Your task to perform on an android device: install app "Messenger Lite" Image 0: 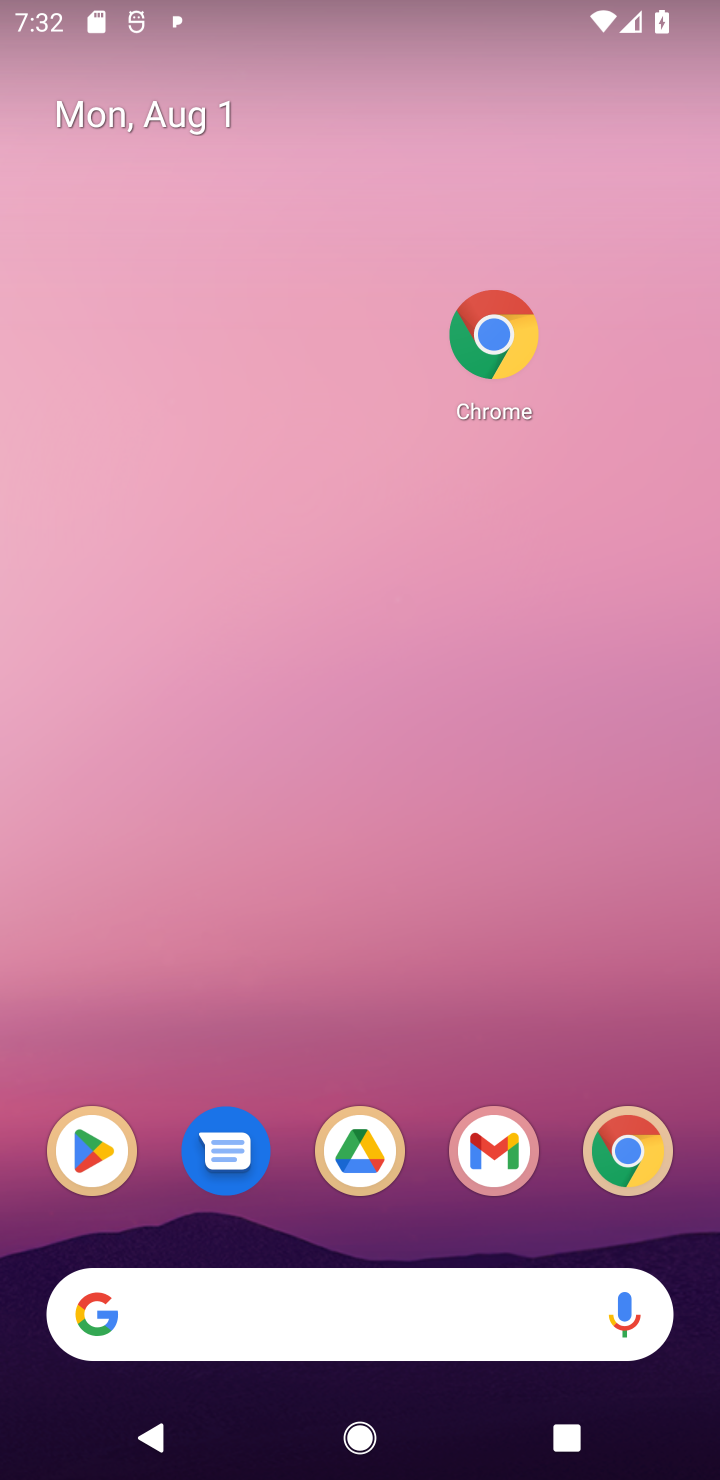
Step 0: click (88, 1163)
Your task to perform on an android device: install app "Messenger Lite" Image 1: 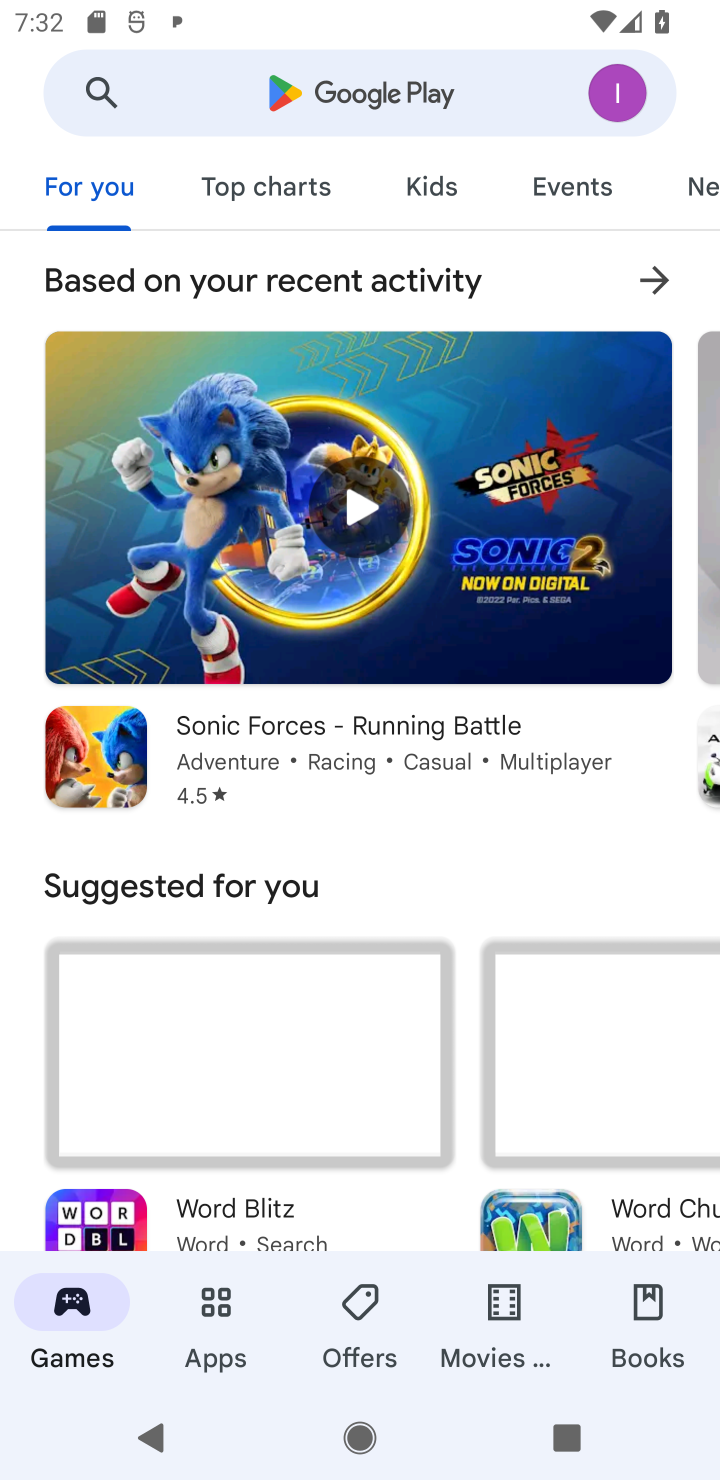
Step 1: click (223, 94)
Your task to perform on an android device: install app "Messenger Lite" Image 2: 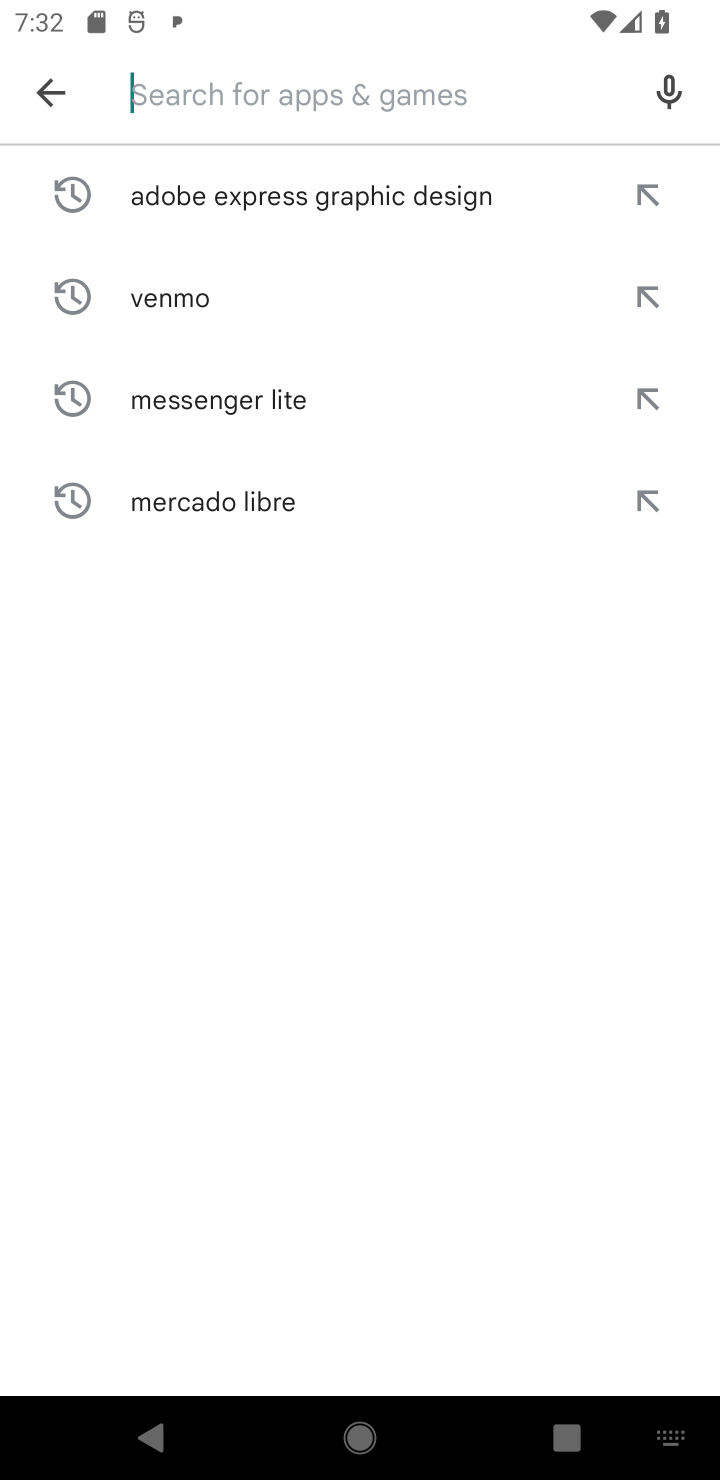
Step 2: type "Messenger Lite"
Your task to perform on an android device: install app "Messenger Lite" Image 3: 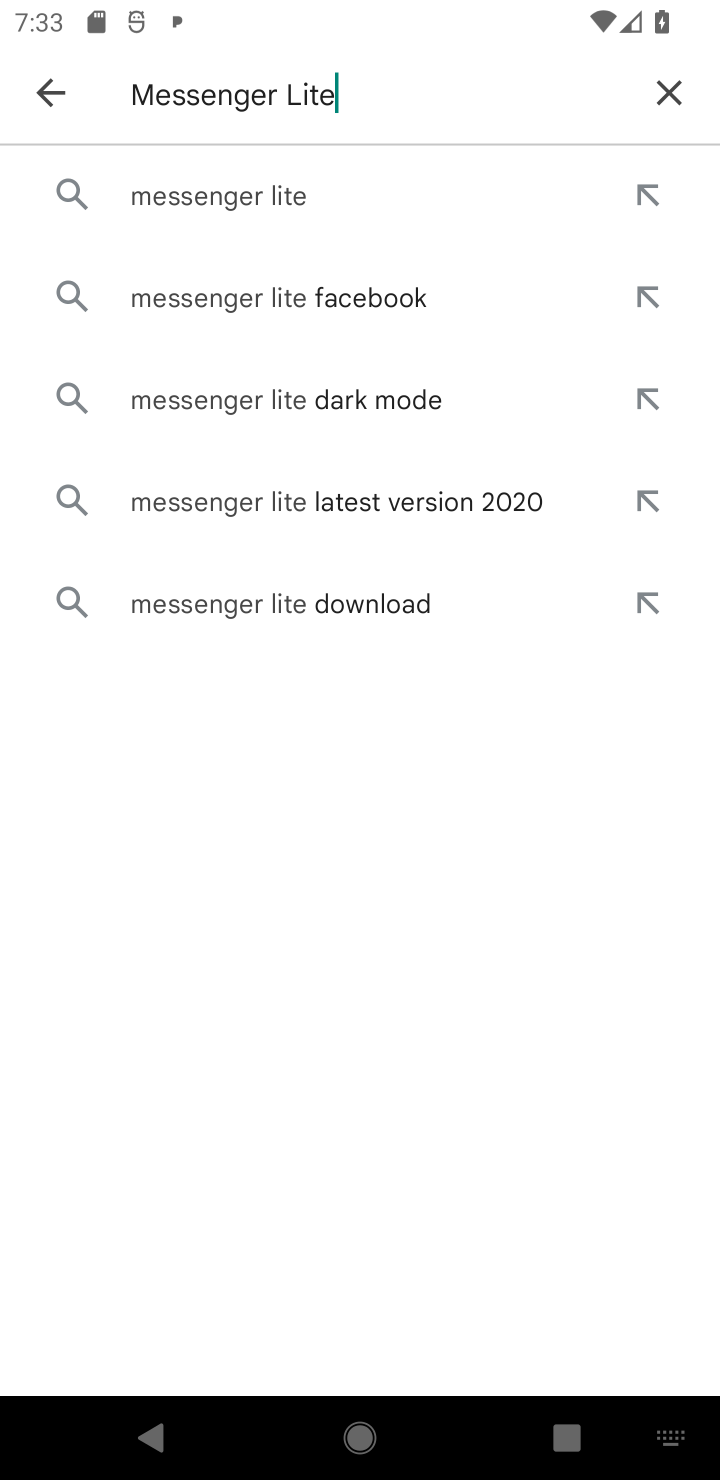
Step 3: click (214, 200)
Your task to perform on an android device: install app "Messenger Lite" Image 4: 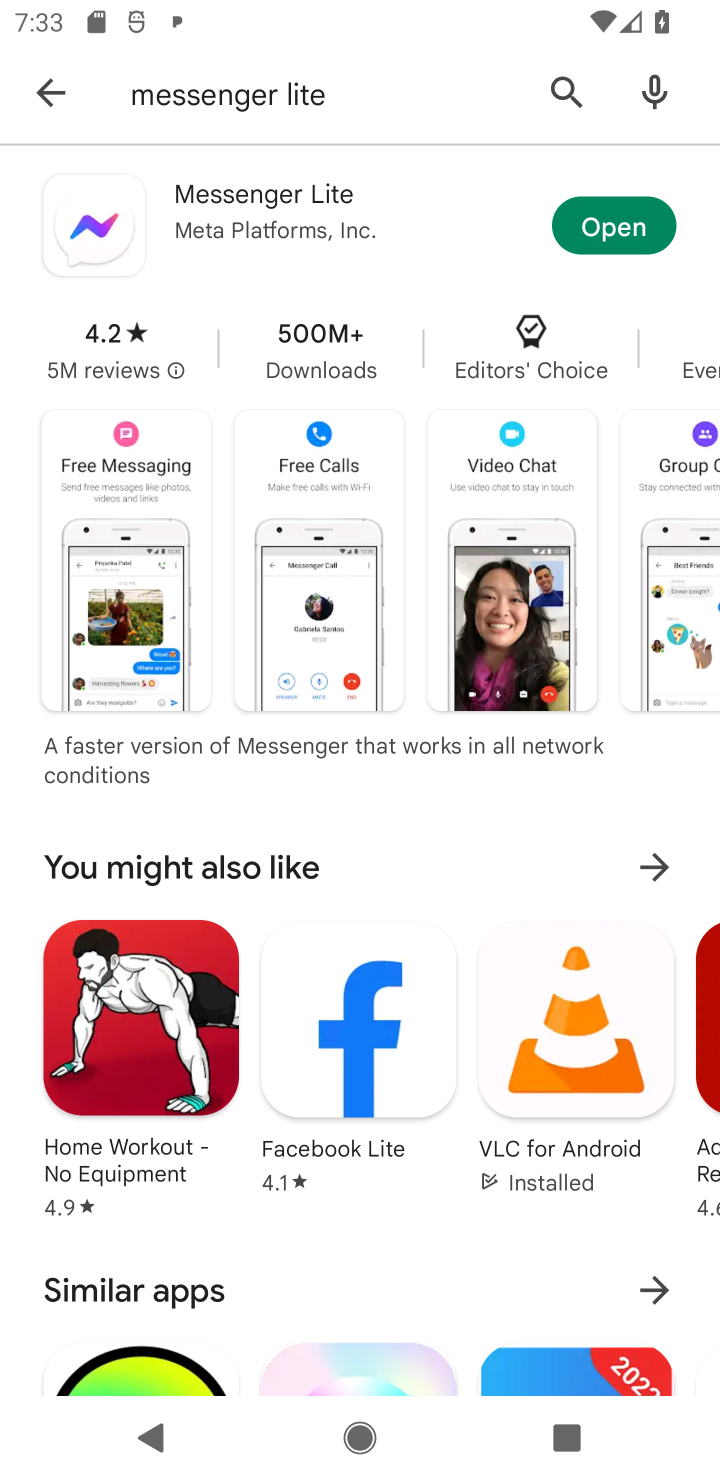
Step 4: task complete